Your task to perform on an android device: Go to eBay Image 0: 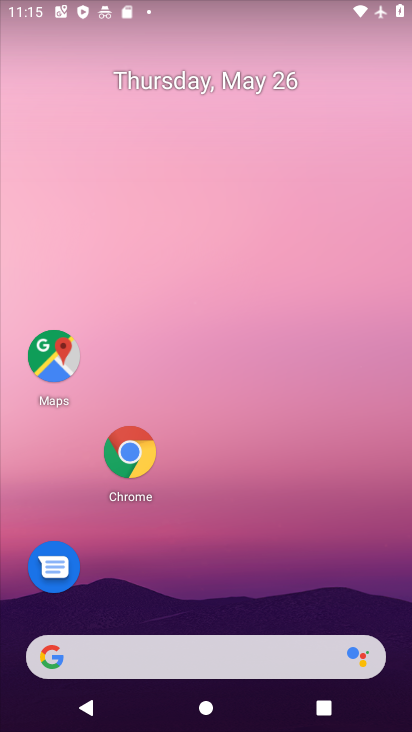
Step 0: press home button
Your task to perform on an android device: Go to eBay Image 1: 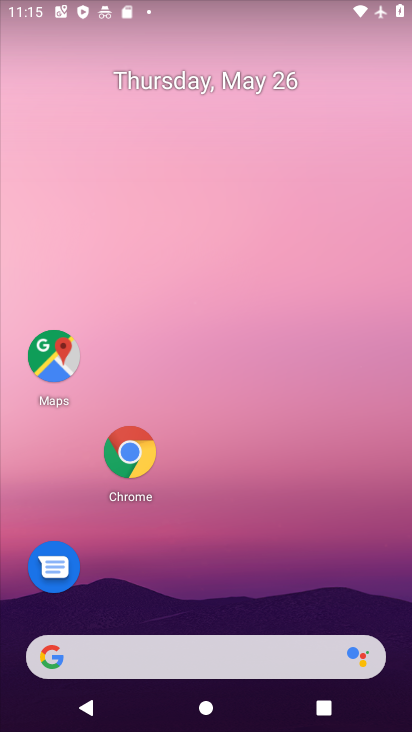
Step 1: click (126, 457)
Your task to perform on an android device: Go to eBay Image 2: 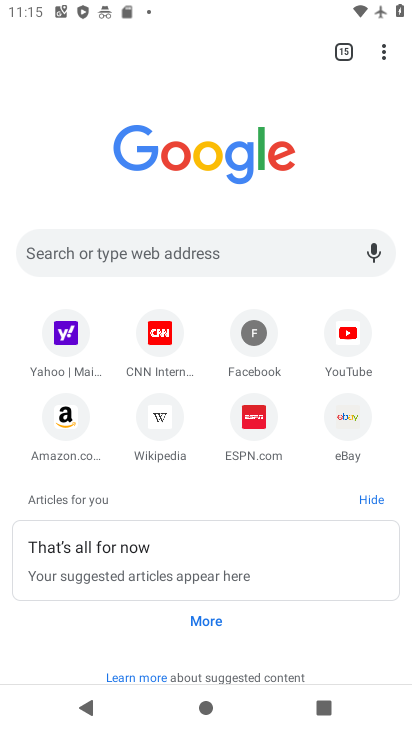
Step 2: click (347, 414)
Your task to perform on an android device: Go to eBay Image 3: 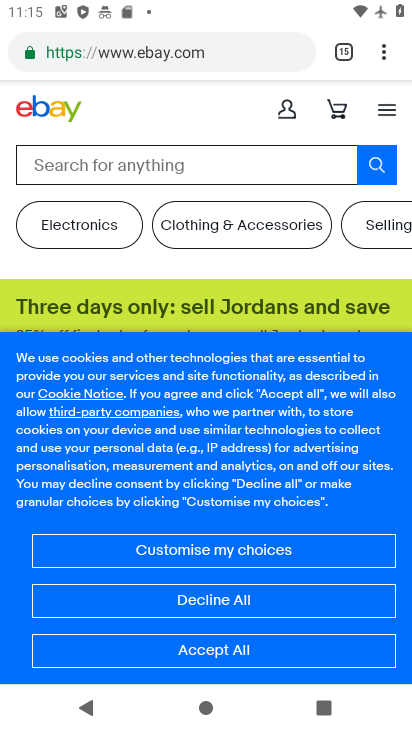
Step 3: task complete